Your task to perform on an android device: Open wifi settings Image 0: 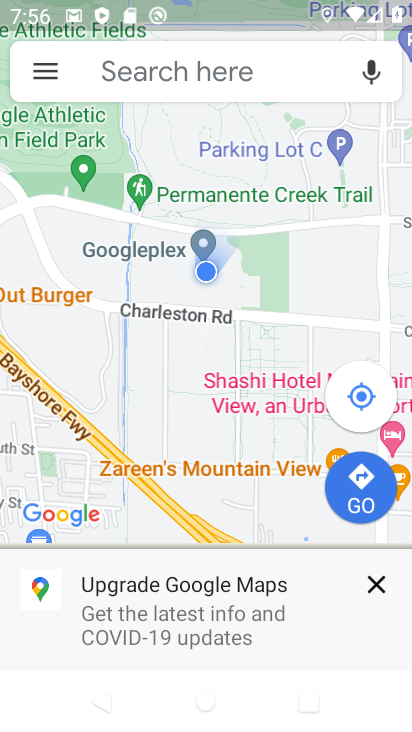
Step 0: press home button
Your task to perform on an android device: Open wifi settings Image 1: 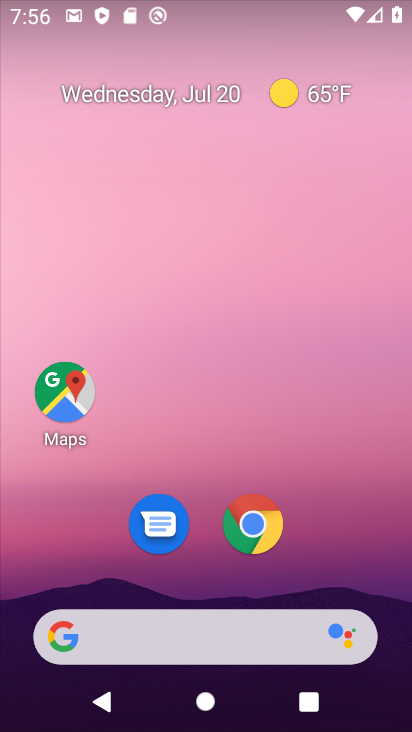
Step 1: drag from (329, 510) to (310, 39)
Your task to perform on an android device: Open wifi settings Image 2: 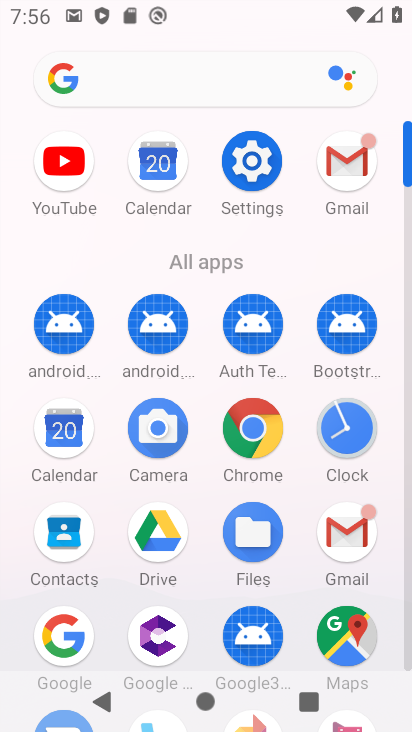
Step 2: click (283, 153)
Your task to perform on an android device: Open wifi settings Image 3: 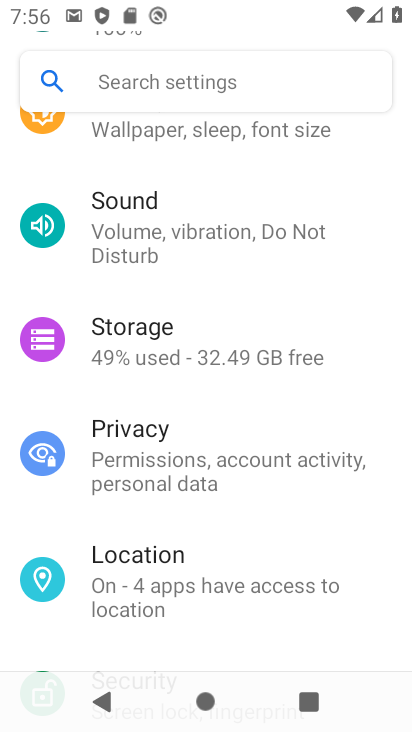
Step 3: drag from (277, 172) to (279, 640)
Your task to perform on an android device: Open wifi settings Image 4: 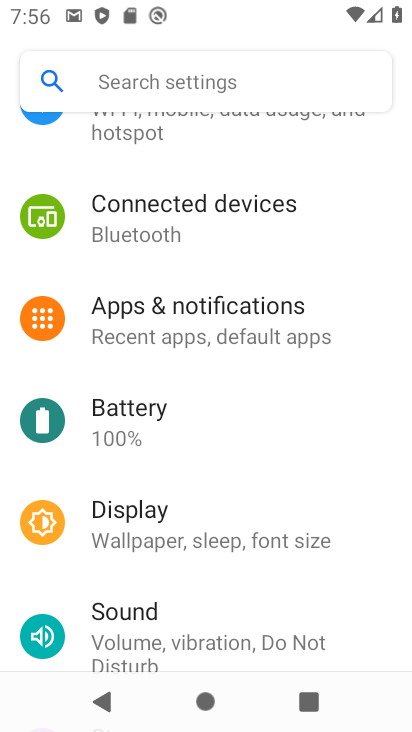
Step 4: drag from (271, 151) to (266, 431)
Your task to perform on an android device: Open wifi settings Image 5: 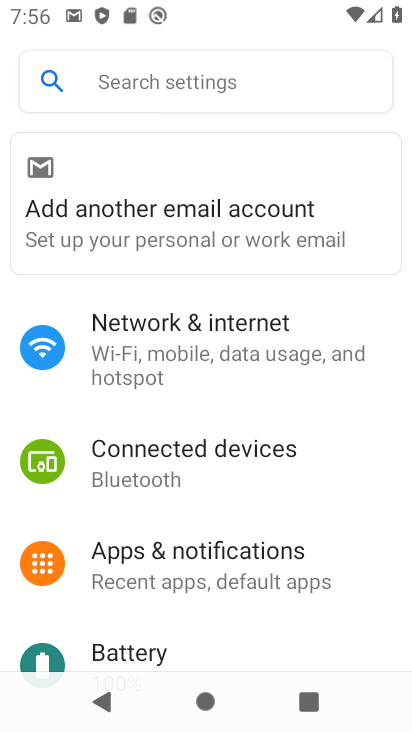
Step 5: click (245, 323)
Your task to perform on an android device: Open wifi settings Image 6: 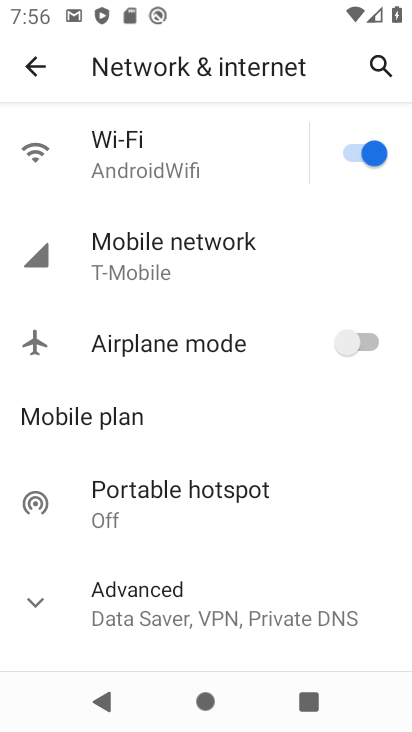
Step 6: click (162, 159)
Your task to perform on an android device: Open wifi settings Image 7: 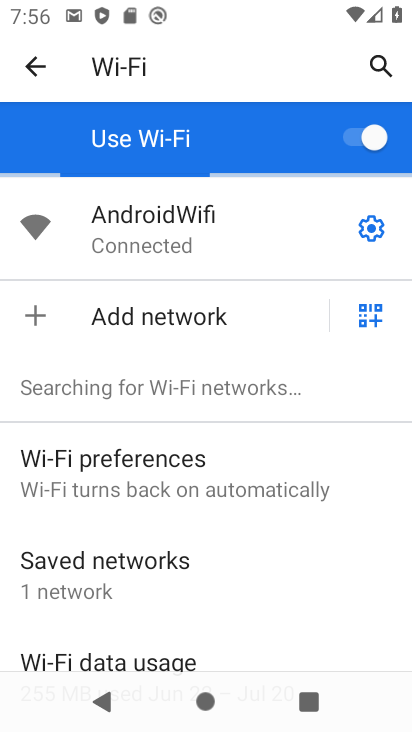
Step 7: task complete